Your task to perform on an android device: search for starred emails in the gmail app Image 0: 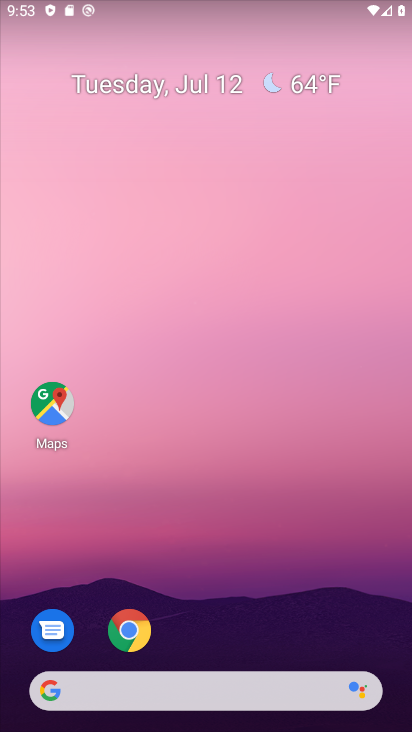
Step 0: drag from (227, 673) to (281, 25)
Your task to perform on an android device: search for starred emails in the gmail app Image 1: 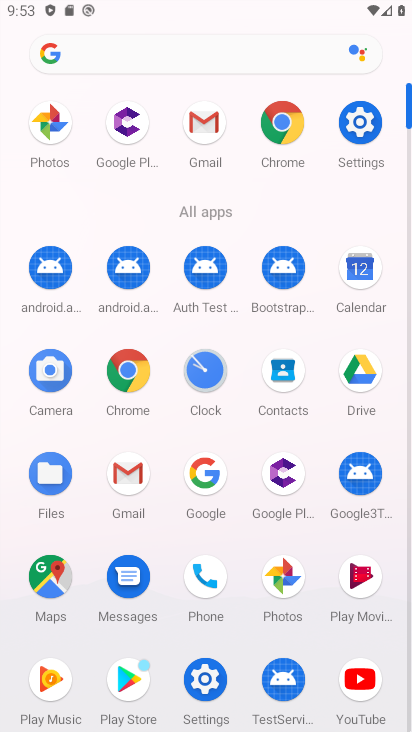
Step 1: click (199, 124)
Your task to perform on an android device: search for starred emails in the gmail app Image 2: 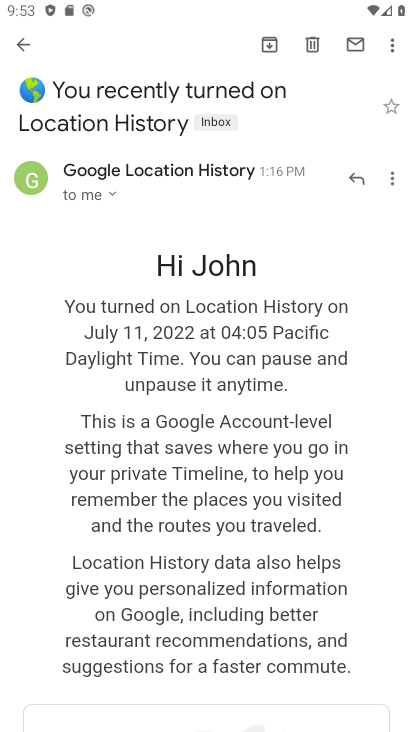
Step 2: click (18, 43)
Your task to perform on an android device: search for starred emails in the gmail app Image 3: 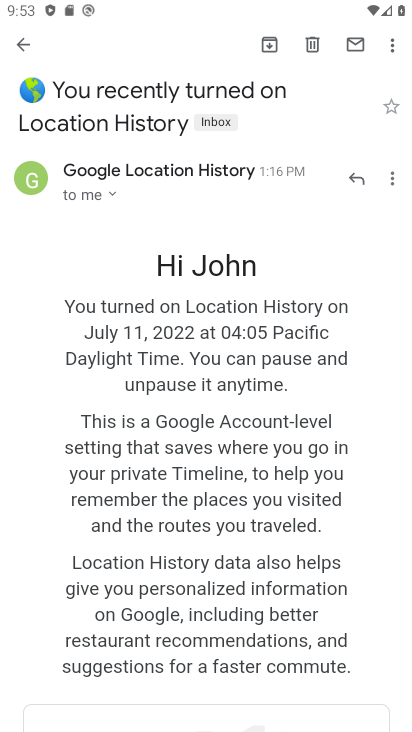
Step 3: click (24, 40)
Your task to perform on an android device: search for starred emails in the gmail app Image 4: 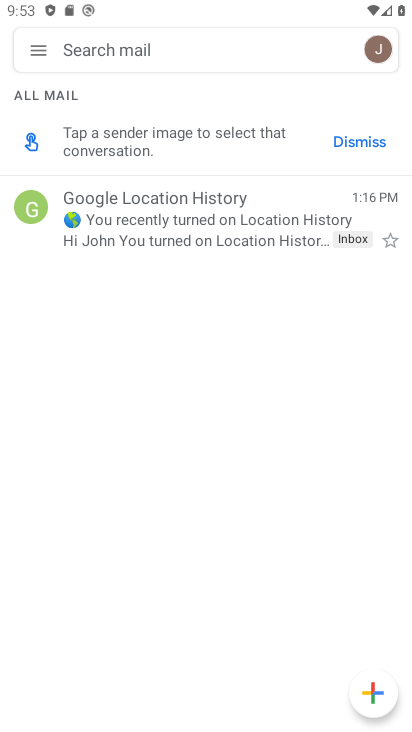
Step 4: click (30, 31)
Your task to perform on an android device: search for starred emails in the gmail app Image 5: 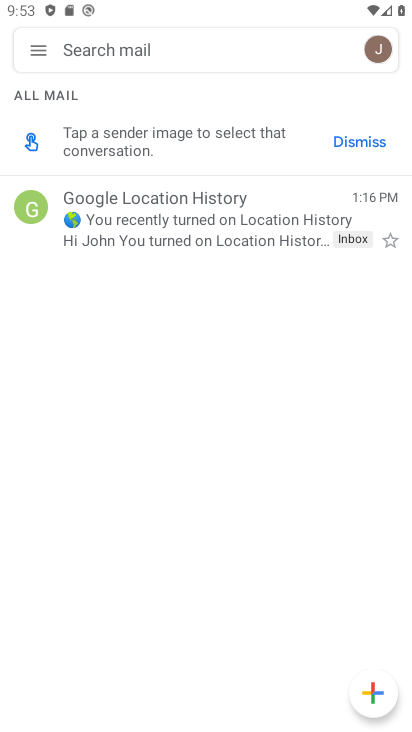
Step 5: click (34, 56)
Your task to perform on an android device: search for starred emails in the gmail app Image 6: 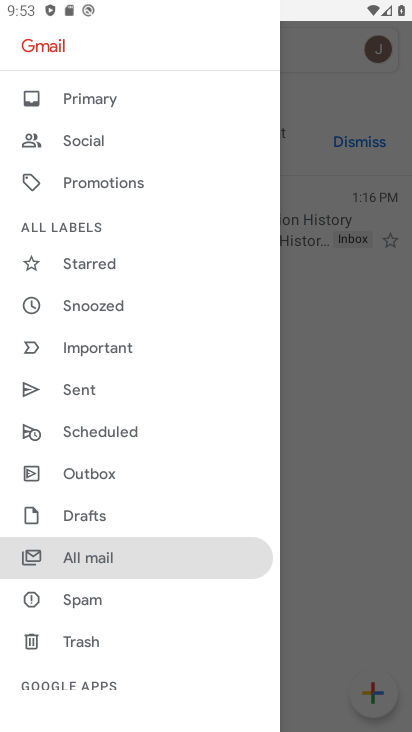
Step 6: click (62, 265)
Your task to perform on an android device: search for starred emails in the gmail app Image 7: 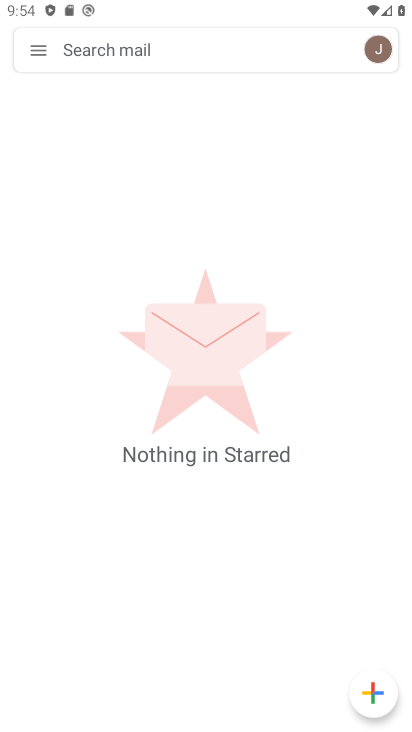
Step 7: task complete